Your task to perform on an android device: refresh tabs in the chrome app Image 0: 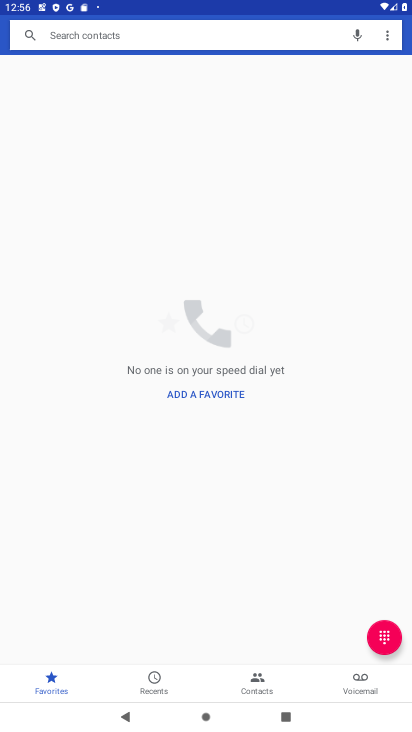
Step 0: press home button
Your task to perform on an android device: refresh tabs in the chrome app Image 1: 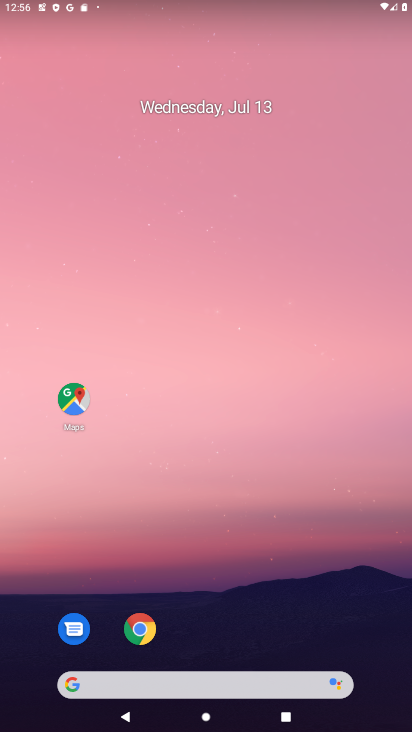
Step 1: drag from (282, 613) to (281, 274)
Your task to perform on an android device: refresh tabs in the chrome app Image 2: 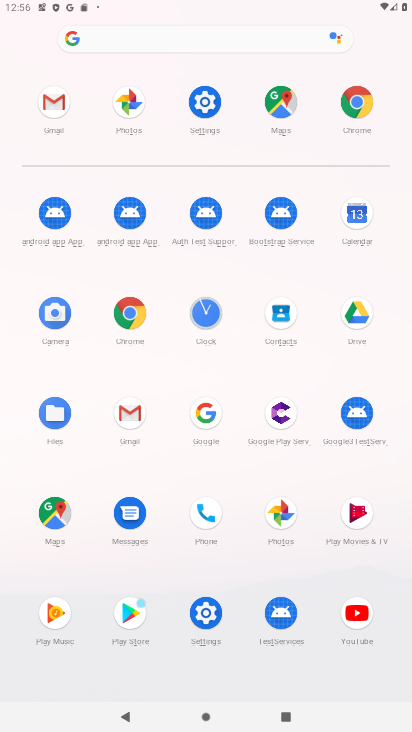
Step 2: click (344, 93)
Your task to perform on an android device: refresh tabs in the chrome app Image 3: 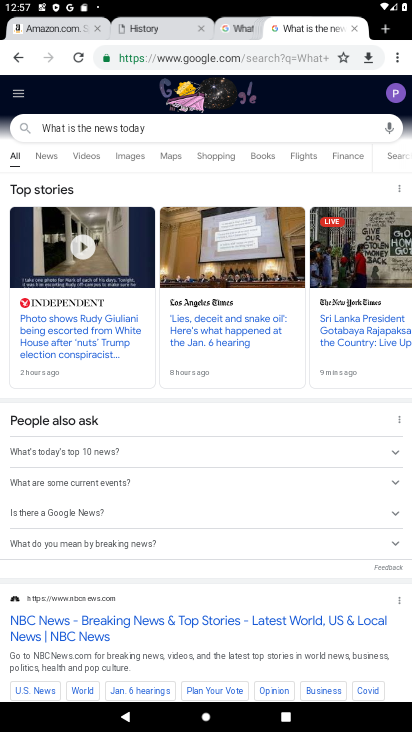
Step 3: click (394, 54)
Your task to perform on an android device: refresh tabs in the chrome app Image 4: 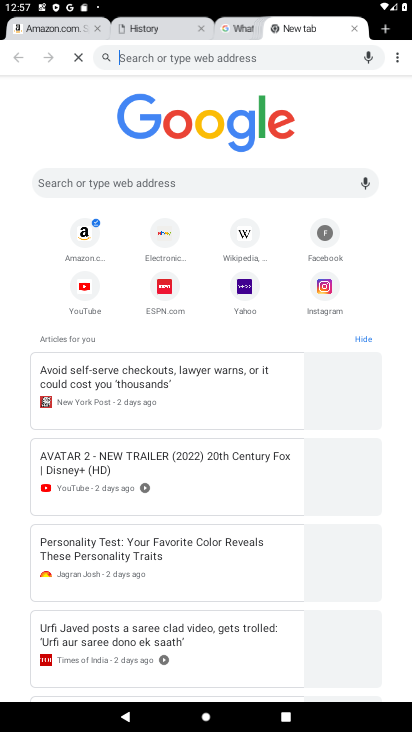
Step 4: click (66, 58)
Your task to perform on an android device: refresh tabs in the chrome app Image 5: 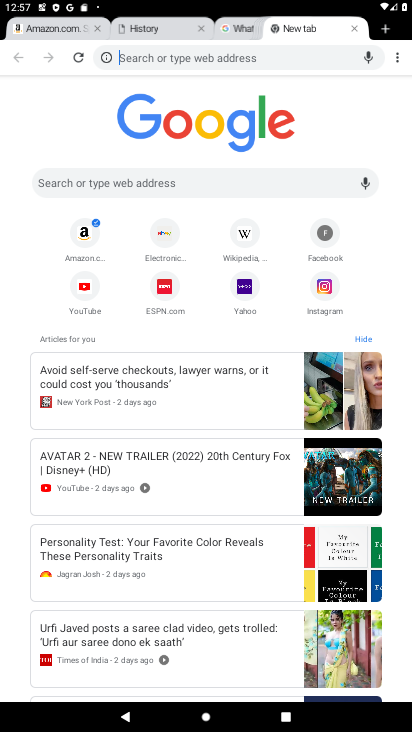
Step 5: task complete